Your task to perform on an android device: change the upload size in google photos Image 0: 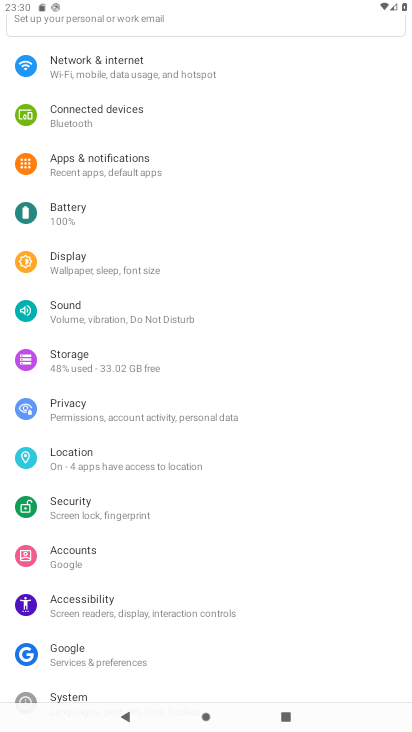
Step 0: drag from (187, 605) to (238, 352)
Your task to perform on an android device: change the upload size in google photos Image 1: 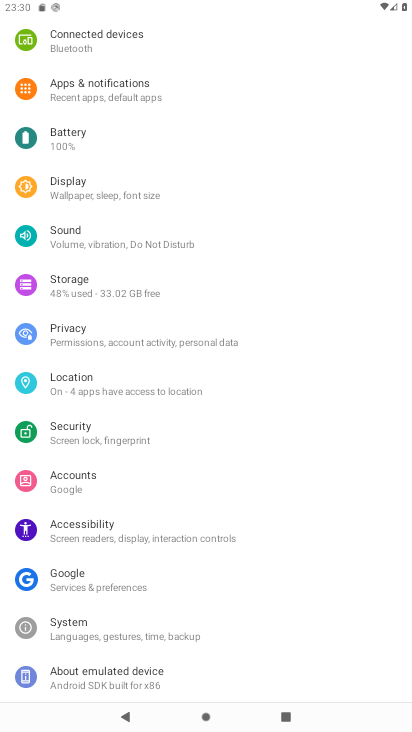
Step 1: click (103, 620)
Your task to perform on an android device: change the upload size in google photos Image 2: 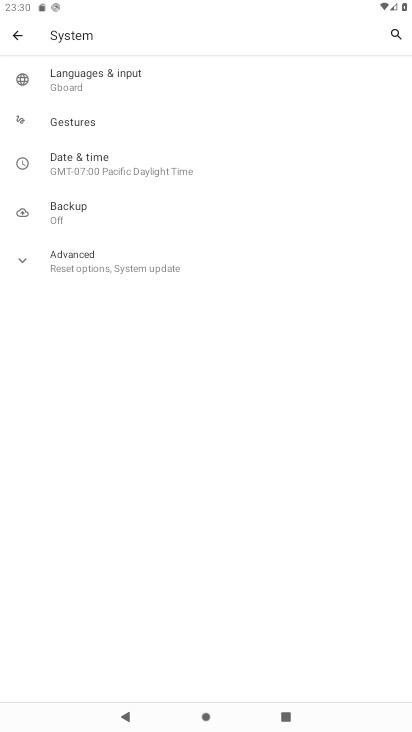
Step 2: click (13, 28)
Your task to perform on an android device: change the upload size in google photos Image 3: 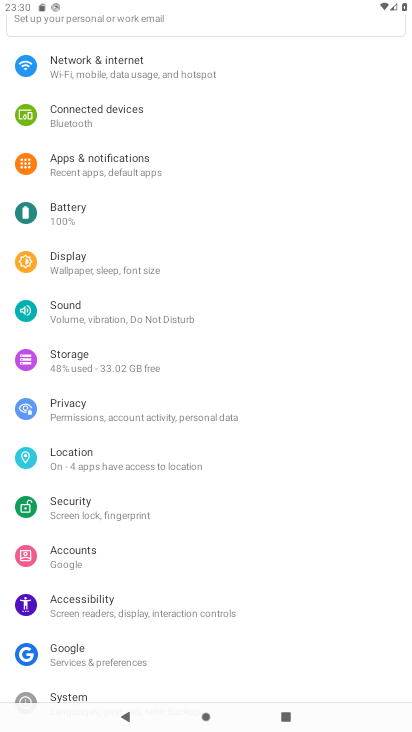
Step 3: click (86, 594)
Your task to perform on an android device: change the upload size in google photos Image 4: 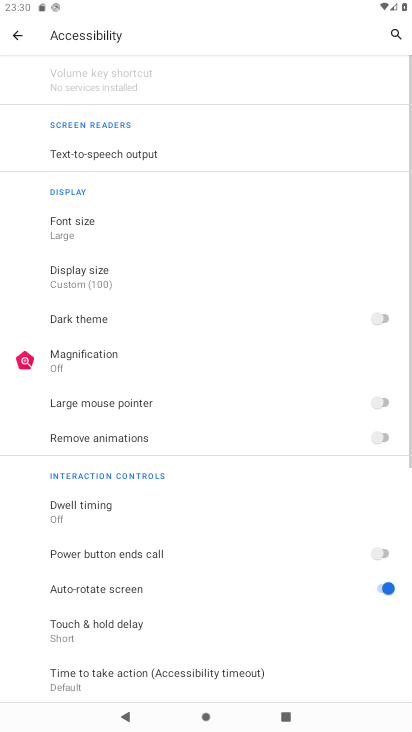
Step 4: click (81, 231)
Your task to perform on an android device: change the upload size in google photos Image 5: 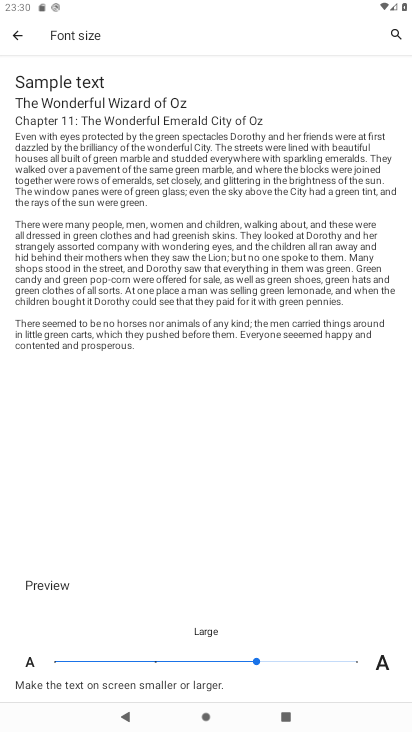
Step 5: click (21, 25)
Your task to perform on an android device: change the upload size in google photos Image 6: 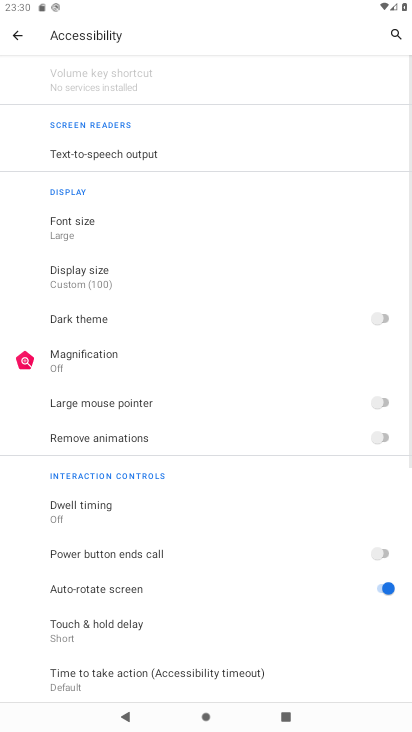
Step 6: press home button
Your task to perform on an android device: change the upload size in google photos Image 7: 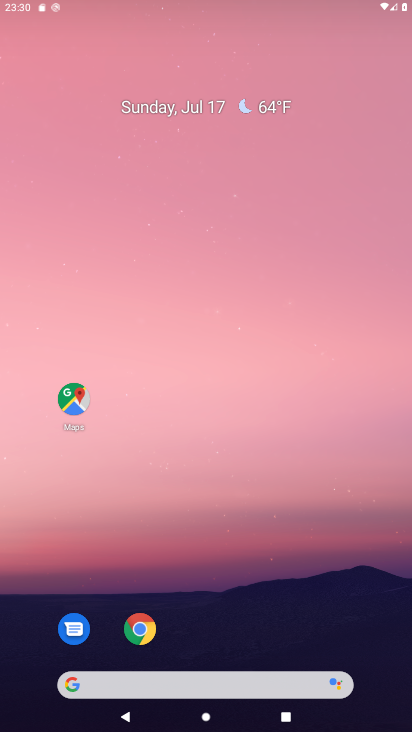
Step 7: drag from (185, 661) to (212, 307)
Your task to perform on an android device: change the upload size in google photos Image 8: 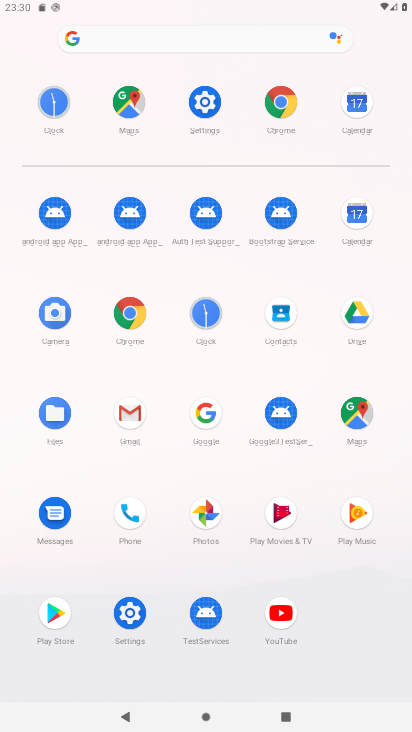
Step 8: click (208, 509)
Your task to perform on an android device: change the upload size in google photos Image 9: 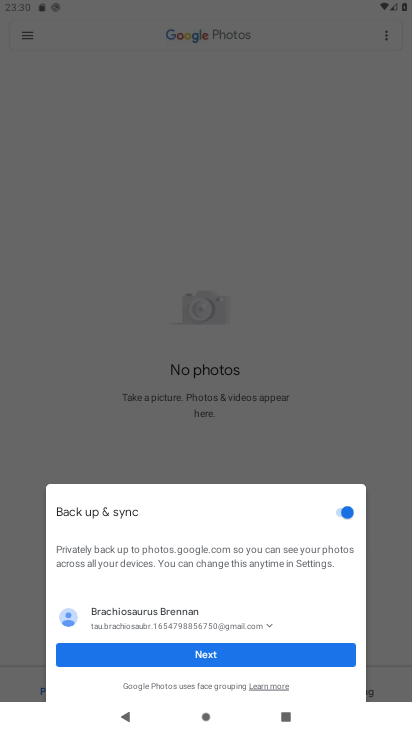
Step 9: click (218, 650)
Your task to perform on an android device: change the upload size in google photos Image 10: 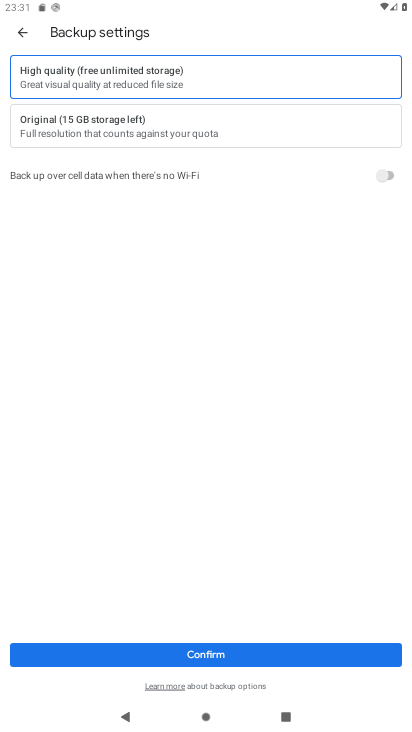
Step 10: click (83, 126)
Your task to perform on an android device: change the upload size in google photos Image 11: 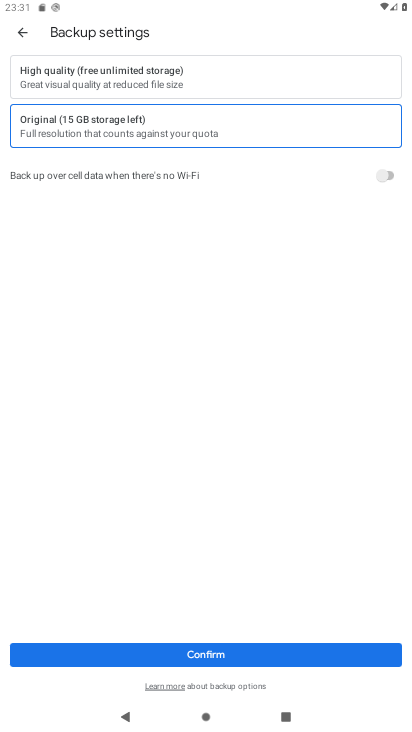
Step 11: click (244, 647)
Your task to perform on an android device: change the upload size in google photos Image 12: 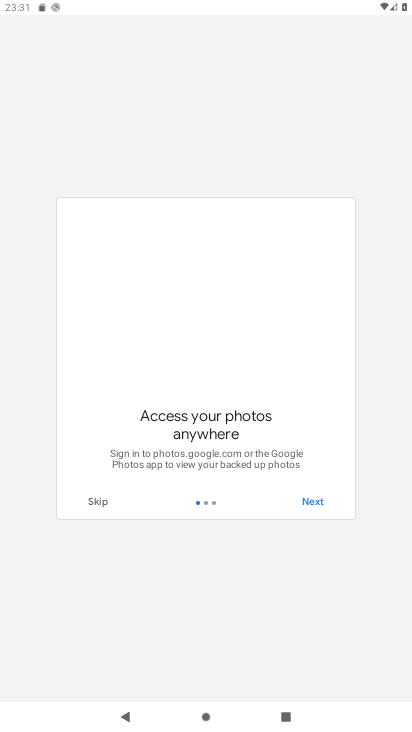
Step 12: task complete